Your task to perform on an android device: Open the Play Movies app and select the watchlist tab. Image 0: 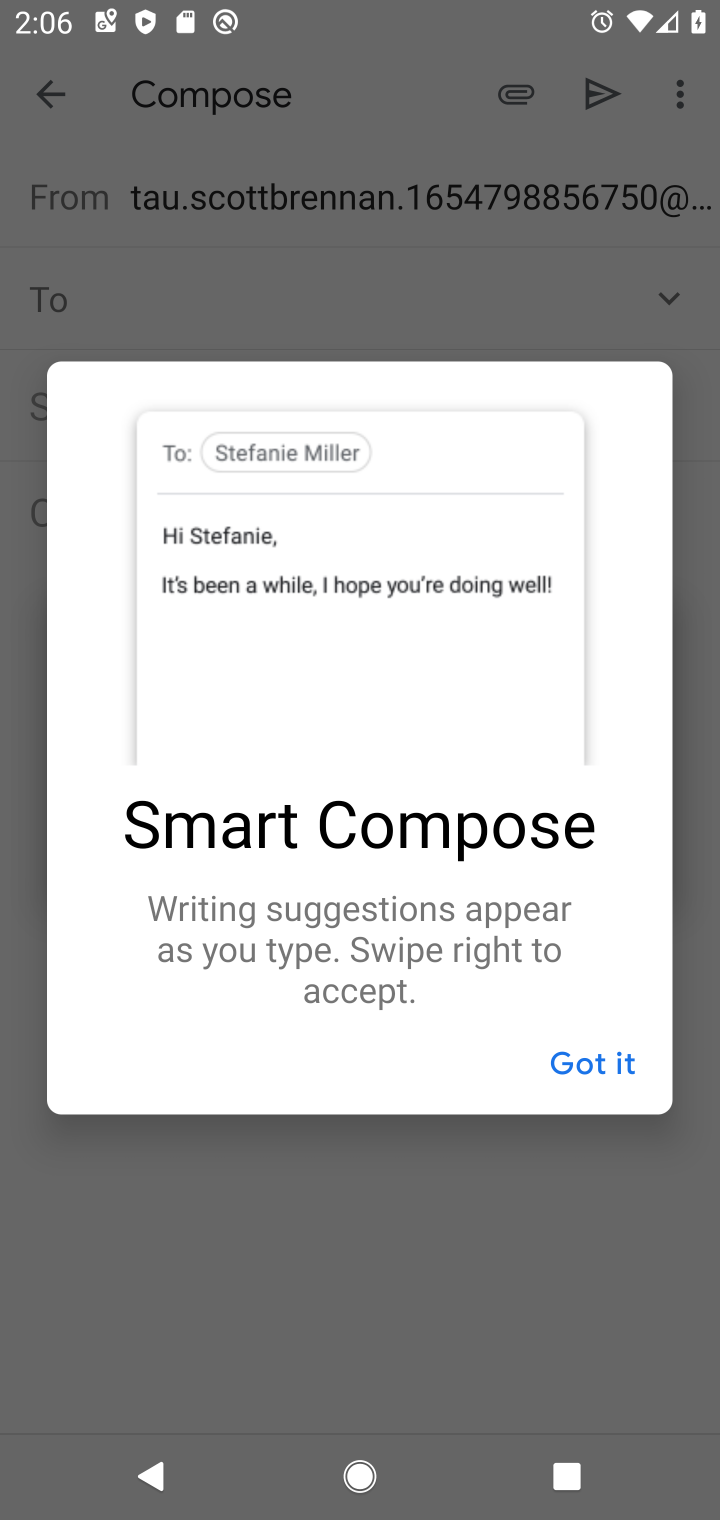
Step 0: press home button
Your task to perform on an android device: Open the Play Movies app and select the watchlist tab. Image 1: 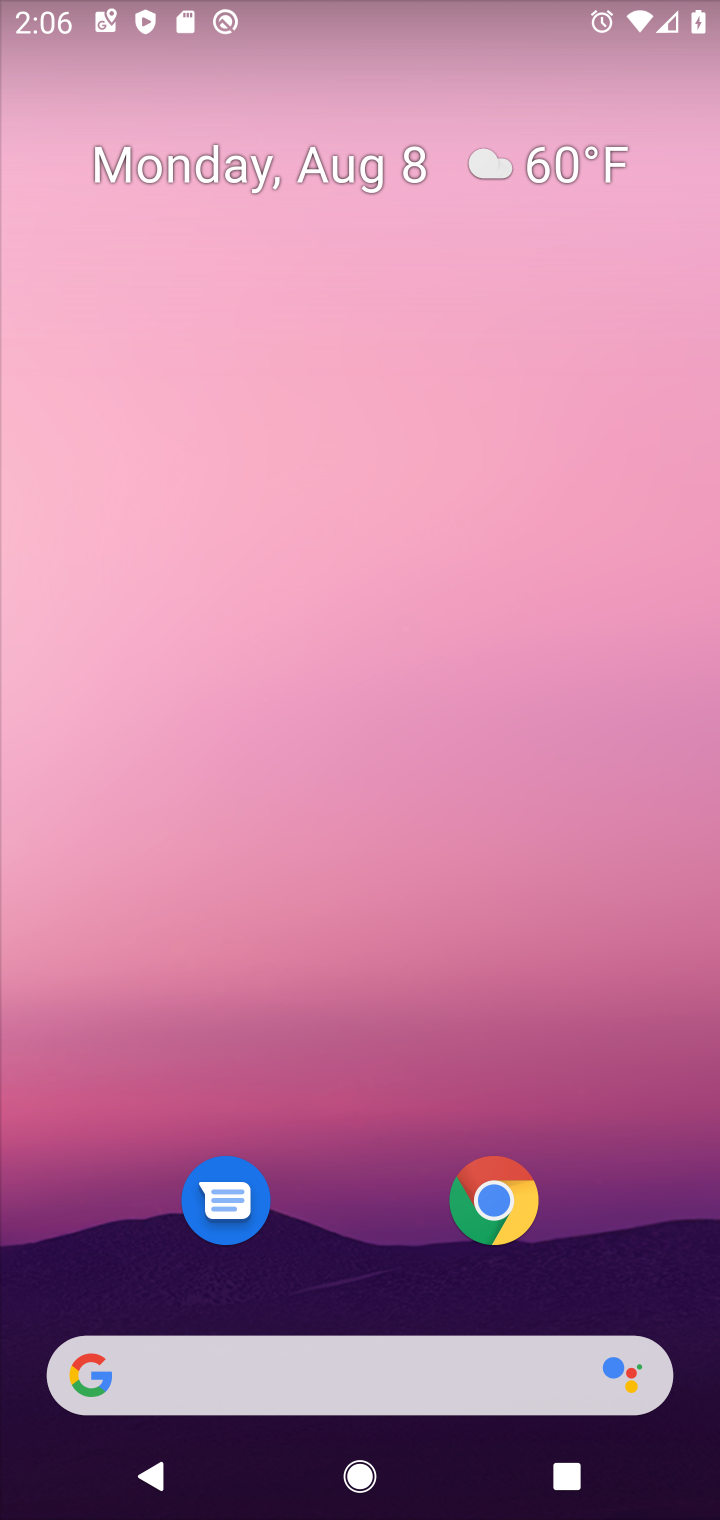
Step 1: drag from (375, 1312) to (380, 282)
Your task to perform on an android device: Open the Play Movies app and select the watchlist tab. Image 2: 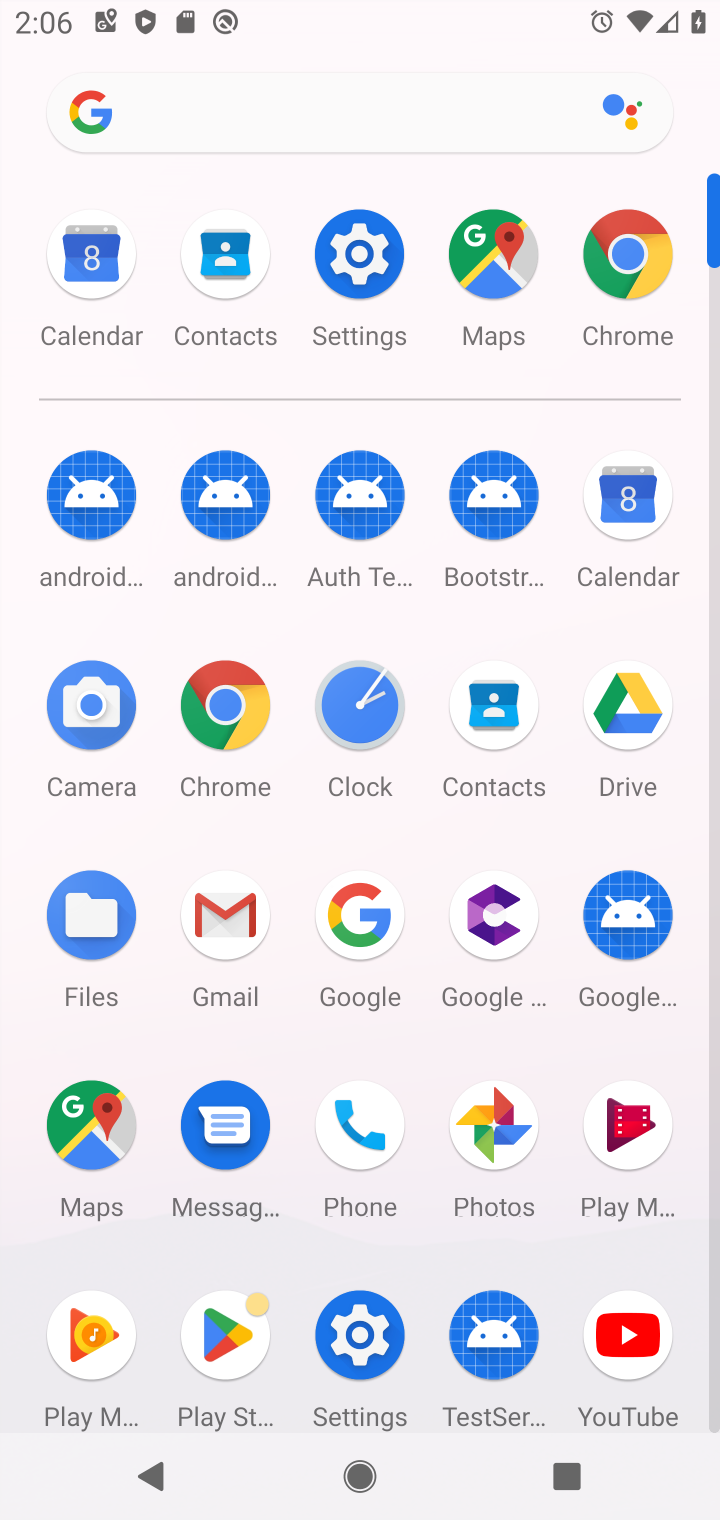
Step 2: click (616, 1116)
Your task to perform on an android device: Open the Play Movies app and select the watchlist tab. Image 3: 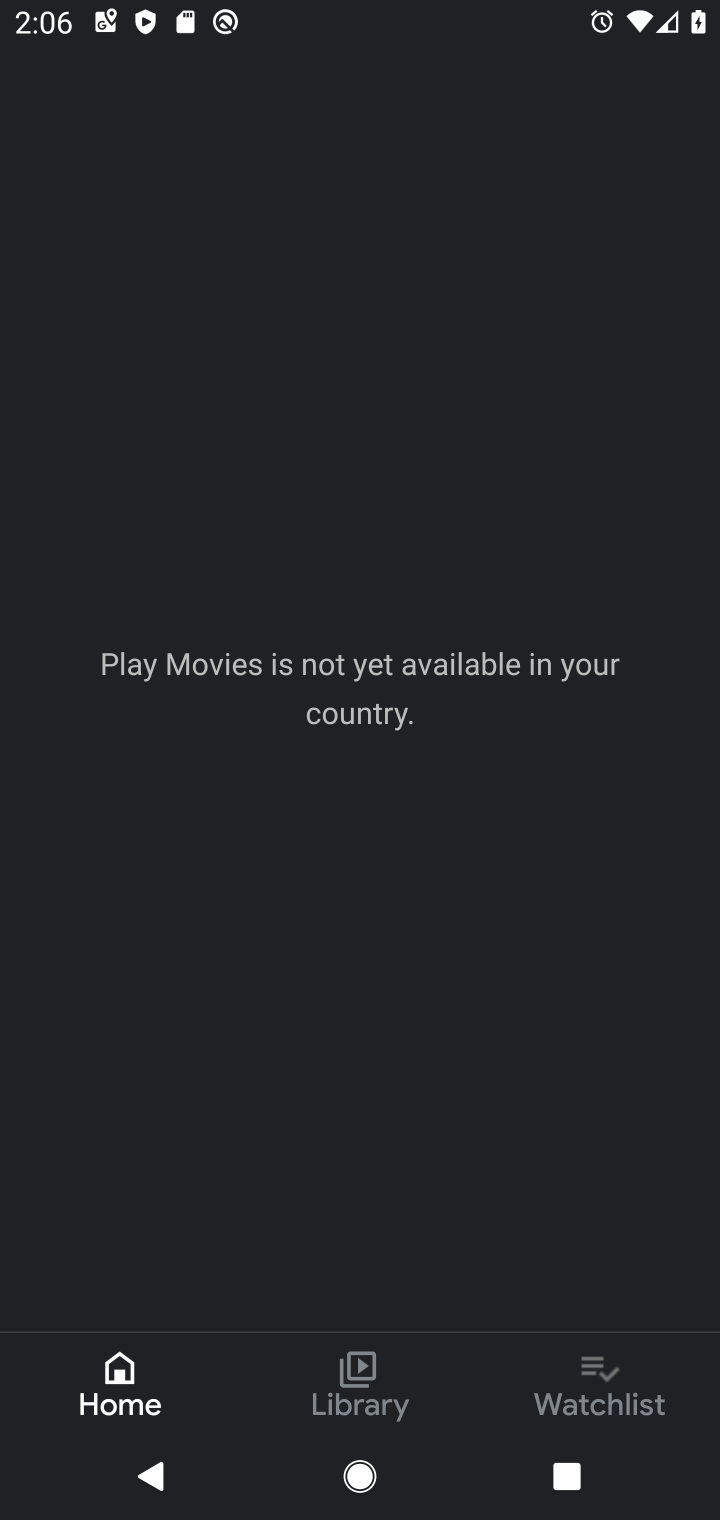
Step 3: click (607, 1354)
Your task to perform on an android device: Open the Play Movies app and select the watchlist tab. Image 4: 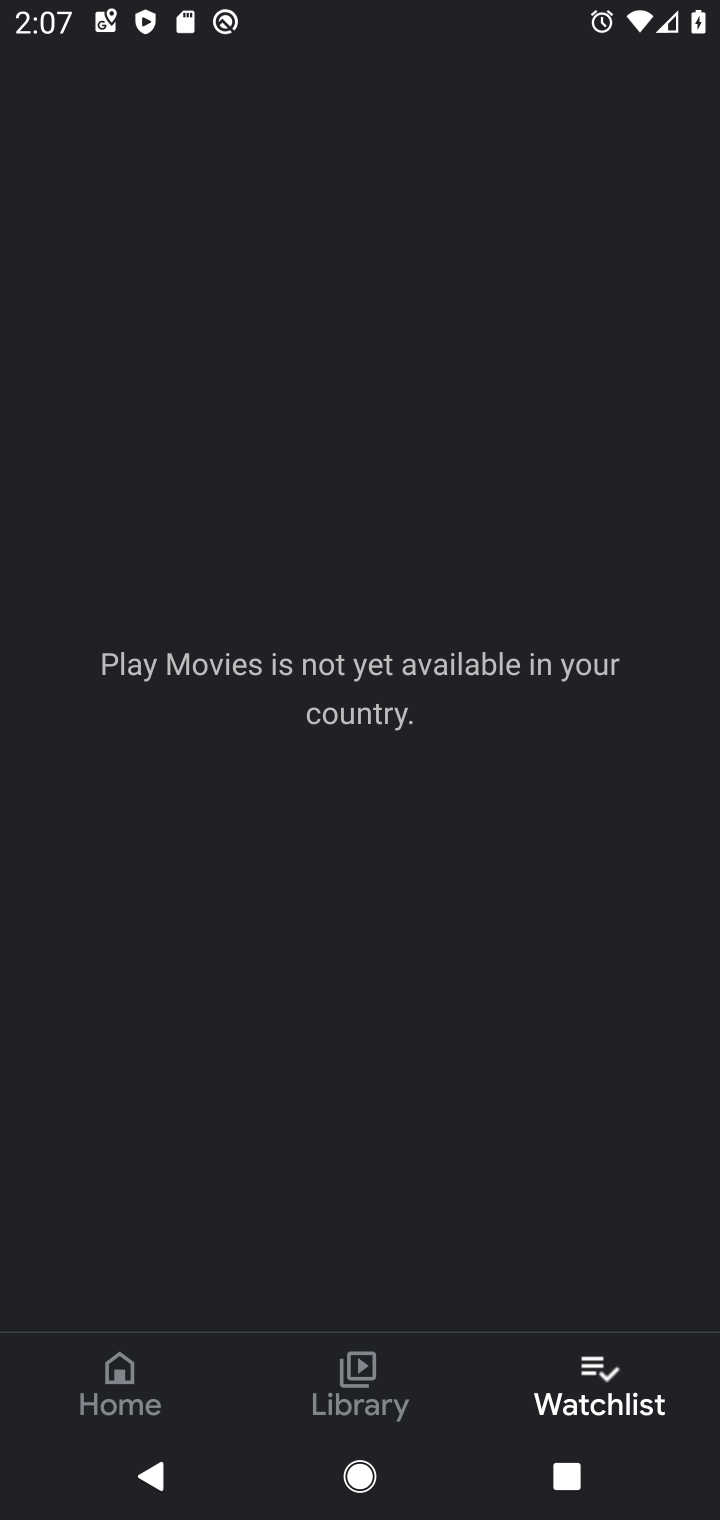
Step 4: task complete